Your task to perform on an android device: delete a single message in the gmail app Image 0: 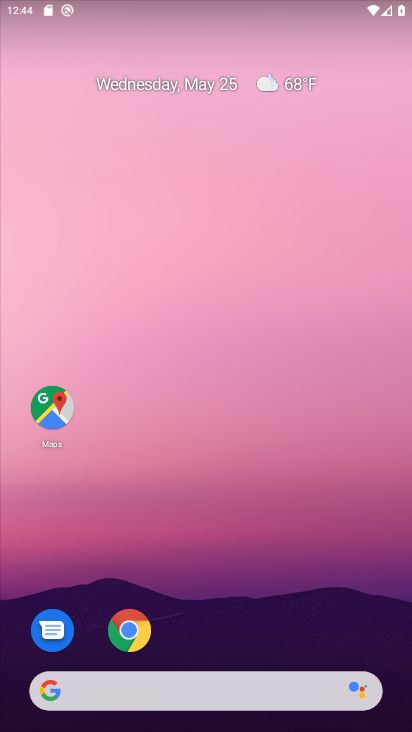
Step 0: drag from (243, 636) to (263, 182)
Your task to perform on an android device: delete a single message in the gmail app Image 1: 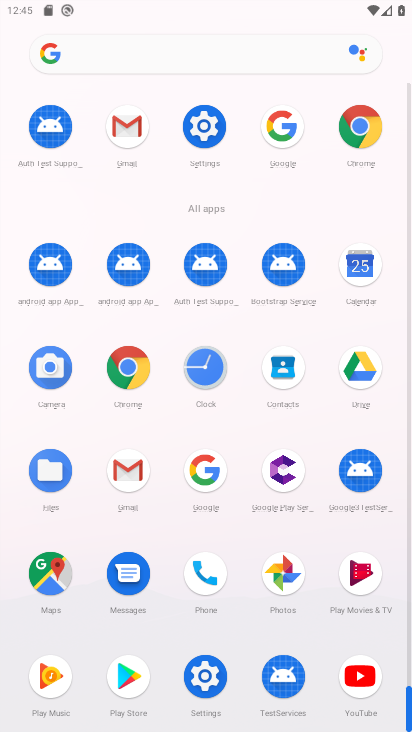
Step 1: click (132, 475)
Your task to perform on an android device: delete a single message in the gmail app Image 2: 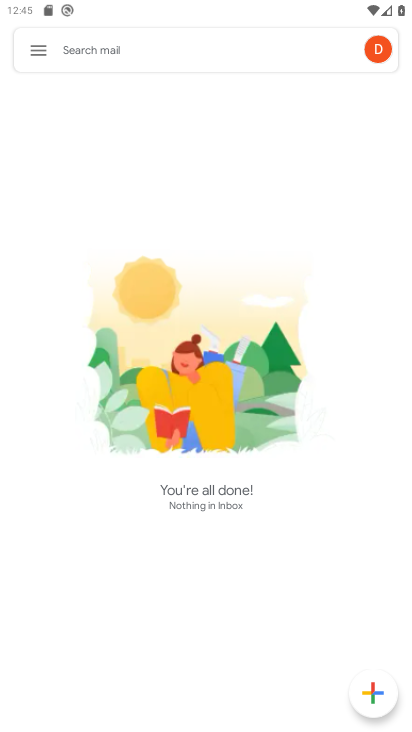
Step 2: click (39, 48)
Your task to perform on an android device: delete a single message in the gmail app Image 3: 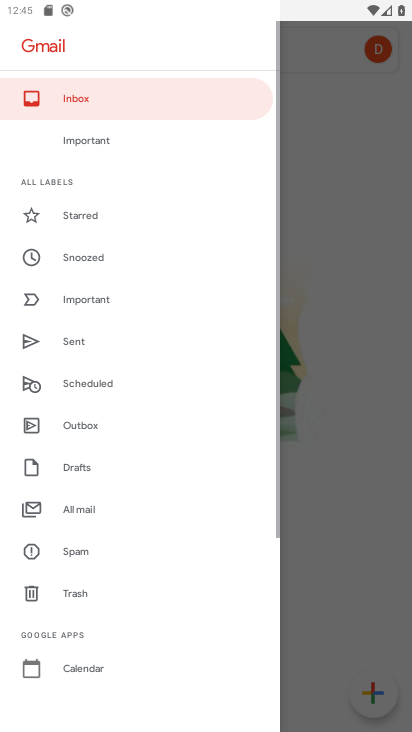
Step 3: click (314, 191)
Your task to perform on an android device: delete a single message in the gmail app Image 4: 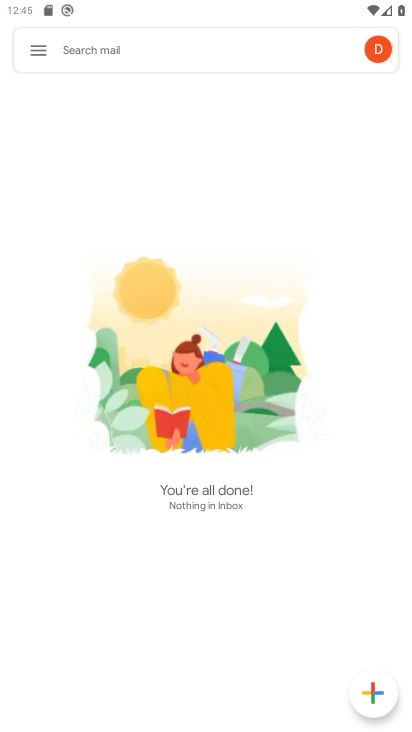
Step 4: task complete